Your task to perform on an android device: Search for razer huntsman on target.com, select the first entry, and add it to the cart. Image 0: 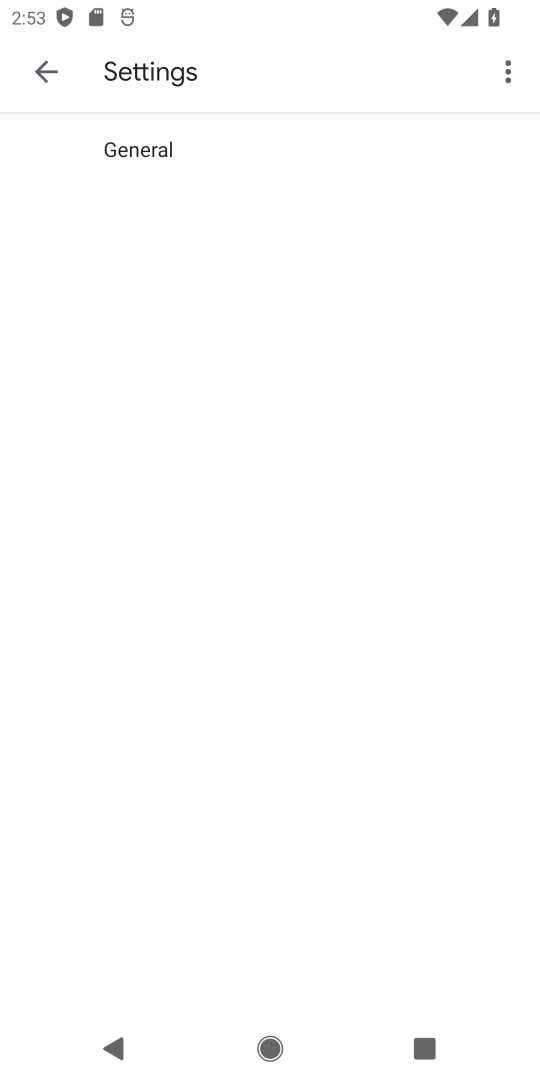
Step 0: press home button
Your task to perform on an android device: Search for razer huntsman on target.com, select the first entry, and add it to the cart. Image 1: 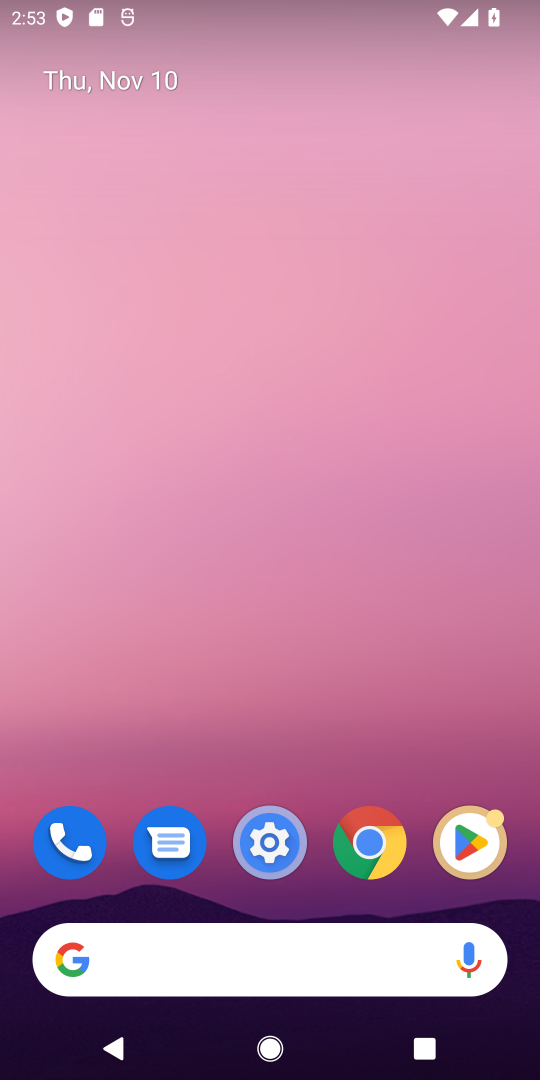
Step 1: click (119, 952)
Your task to perform on an android device: Search for razer huntsman on target.com, select the first entry, and add it to the cart. Image 2: 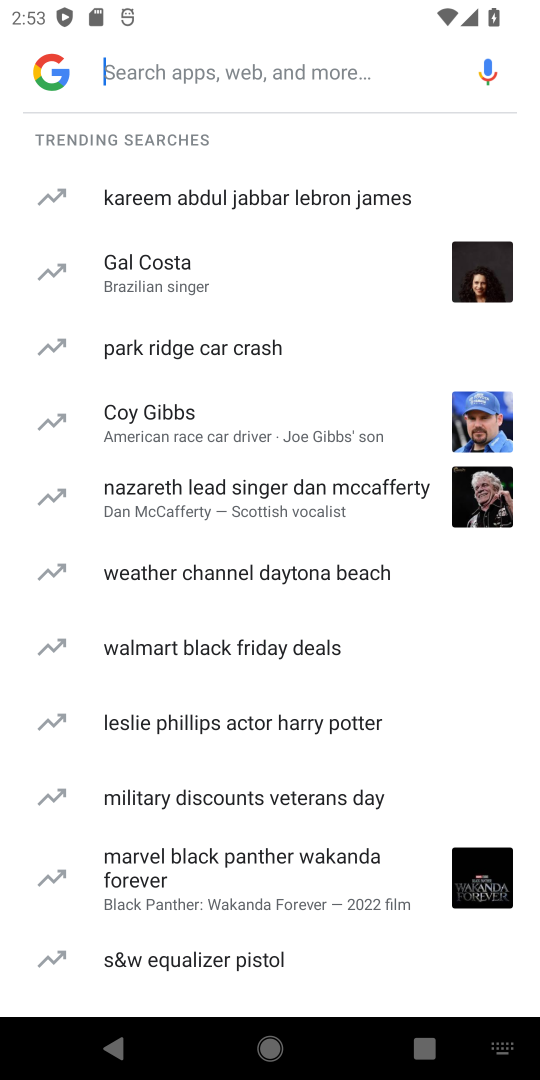
Step 2: type "target.com"
Your task to perform on an android device: Search for razer huntsman on target.com, select the first entry, and add it to the cart. Image 3: 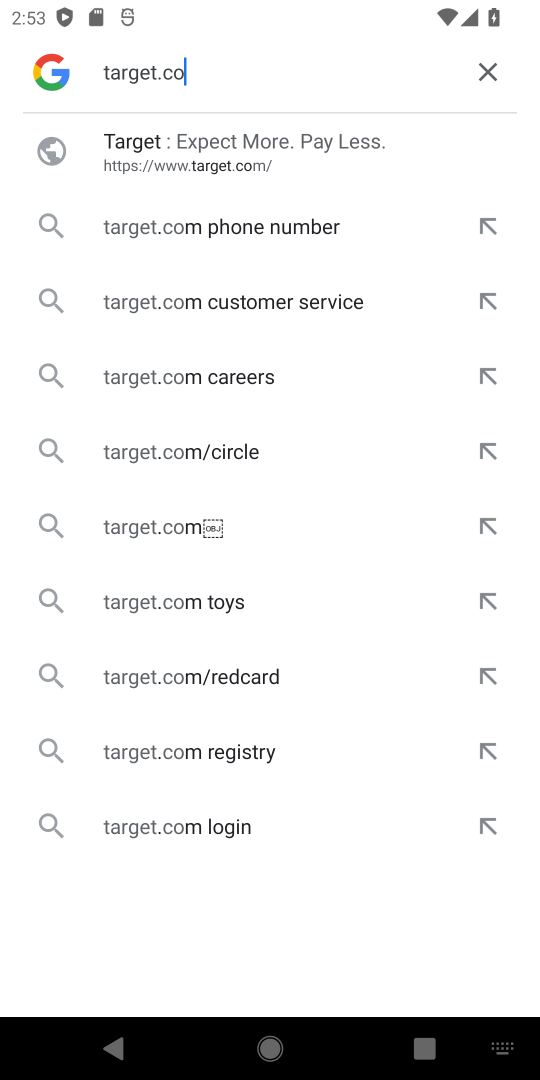
Step 3: press enter
Your task to perform on an android device: Search for razer huntsman on target.com, select the first entry, and add it to the cart. Image 4: 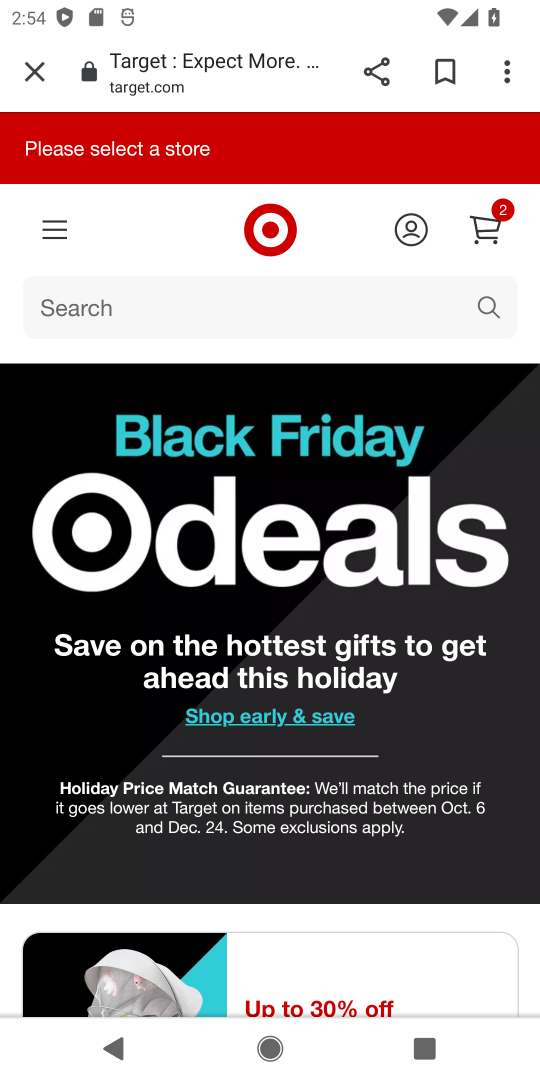
Step 4: click (103, 301)
Your task to perform on an android device: Search for razer huntsman on target.com, select the first entry, and add it to the cart. Image 5: 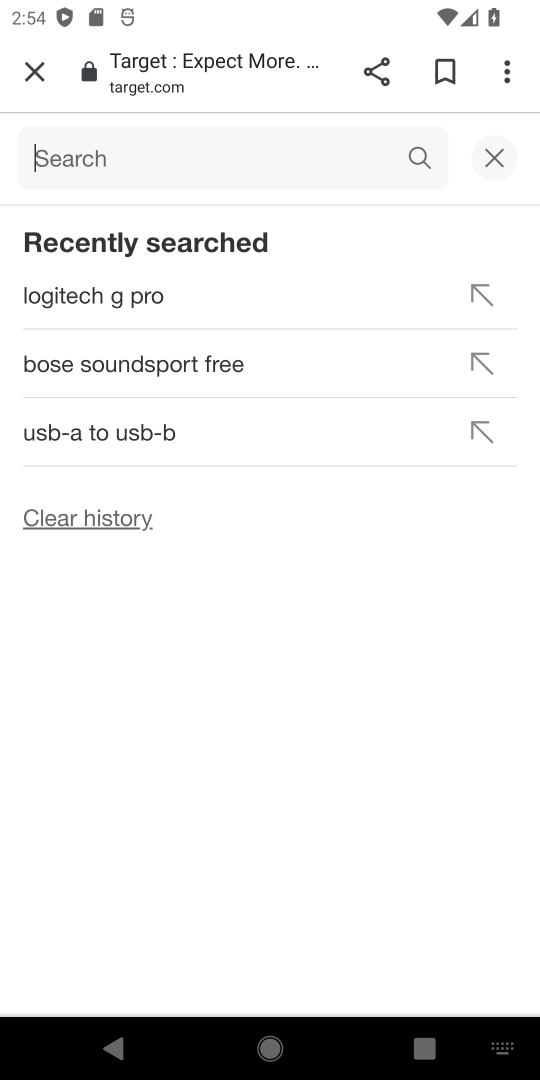
Step 5: press enter
Your task to perform on an android device: Search for razer huntsman on target.com, select the first entry, and add it to the cart. Image 6: 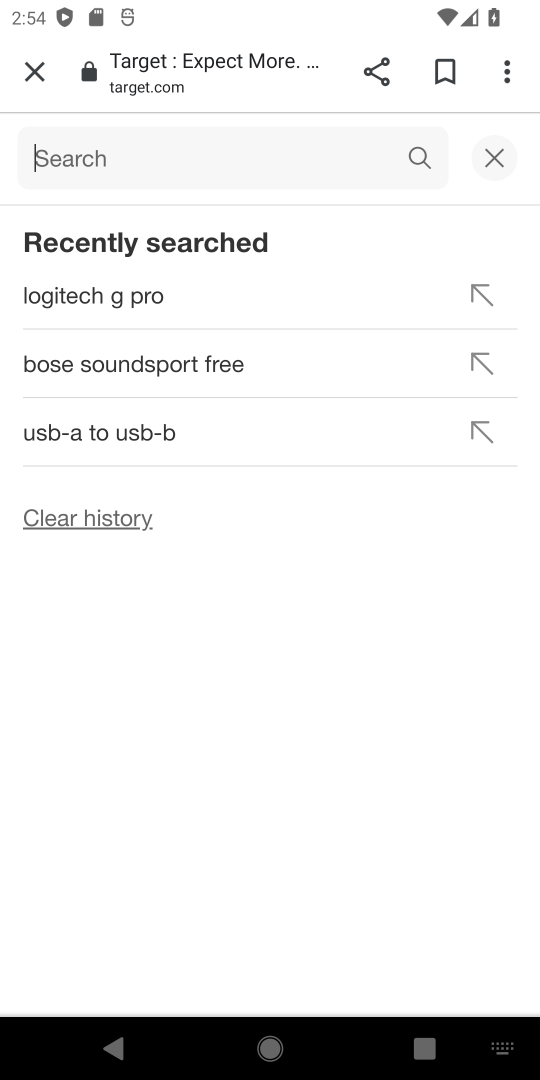
Step 6: type " razer huntsman"
Your task to perform on an android device: Search for razer huntsman on target.com, select the first entry, and add it to the cart. Image 7: 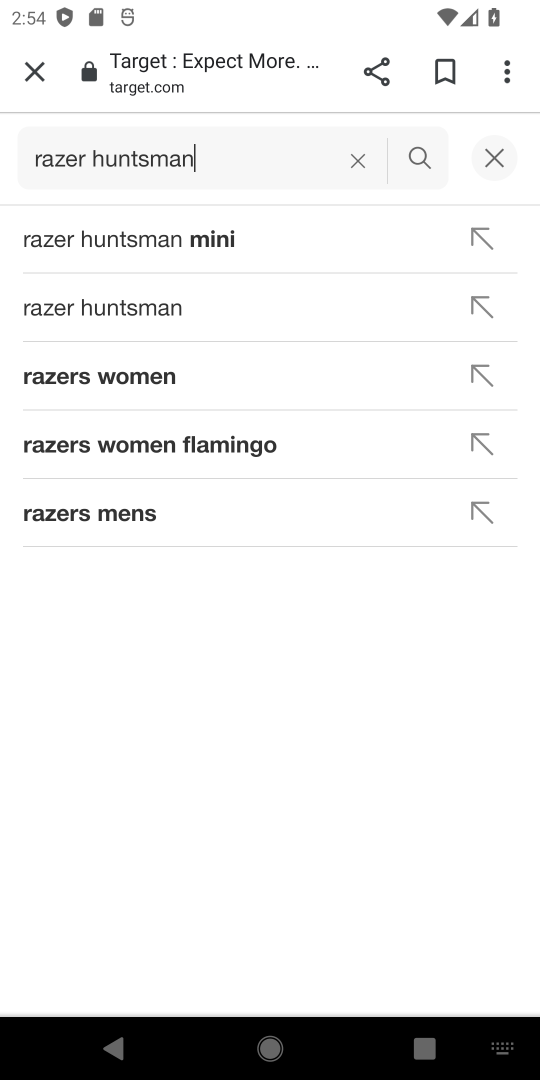
Step 7: click (425, 152)
Your task to perform on an android device: Search for razer huntsman on target.com, select the first entry, and add it to the cart. Image 8: 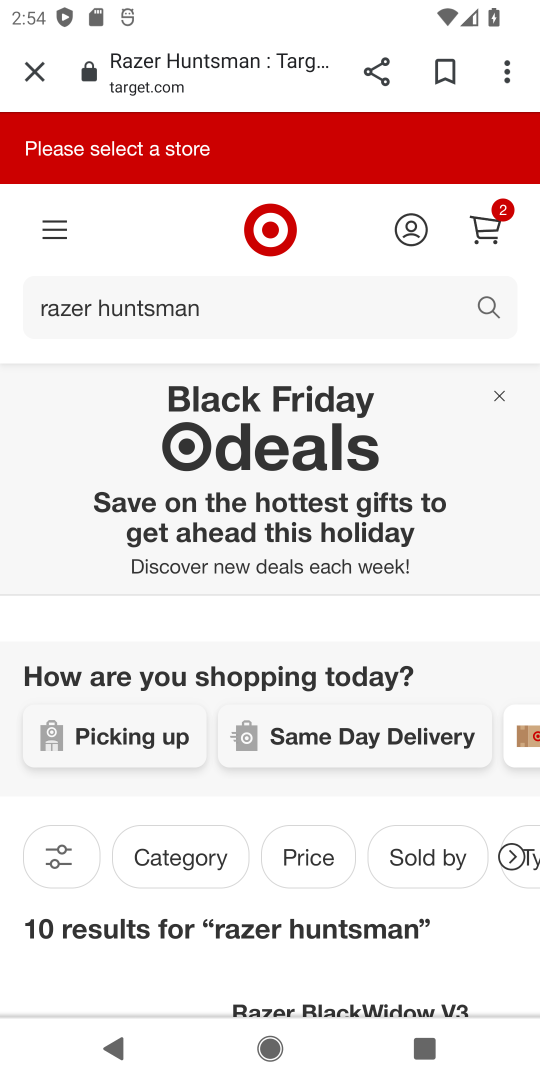
Step 8: drag from (349, 752) to (299, 362)
Your task to perform on an android device: Search for razer huntsman on target.com, select the first entry, and add it to the cart. Image 9: 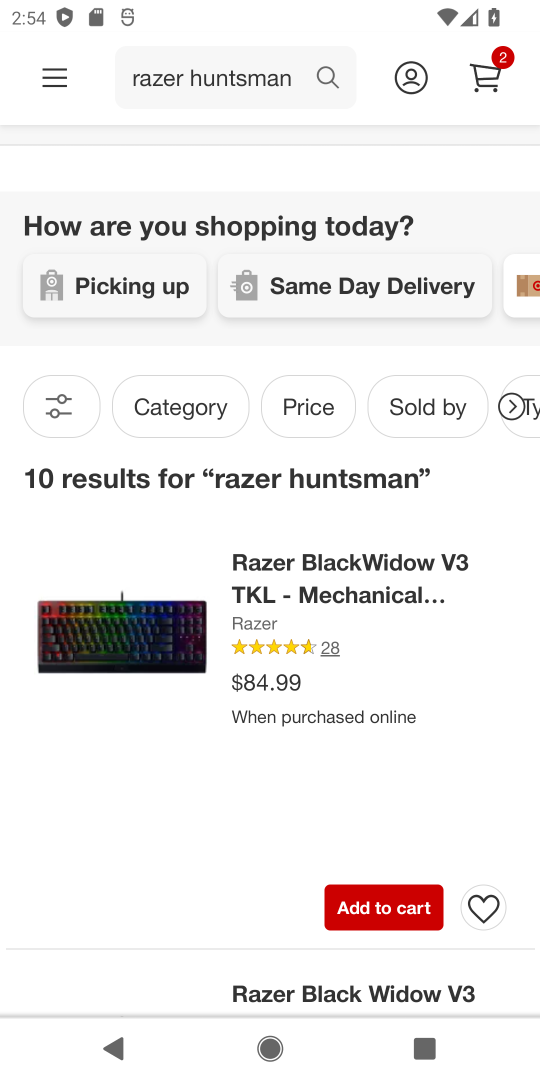
Step 9: drag from (314, 817) to (331, 491)
Your task to perform on an android device: Search for razer huntsman on target.com, select the first entry, and add it to the cart. Image 10: 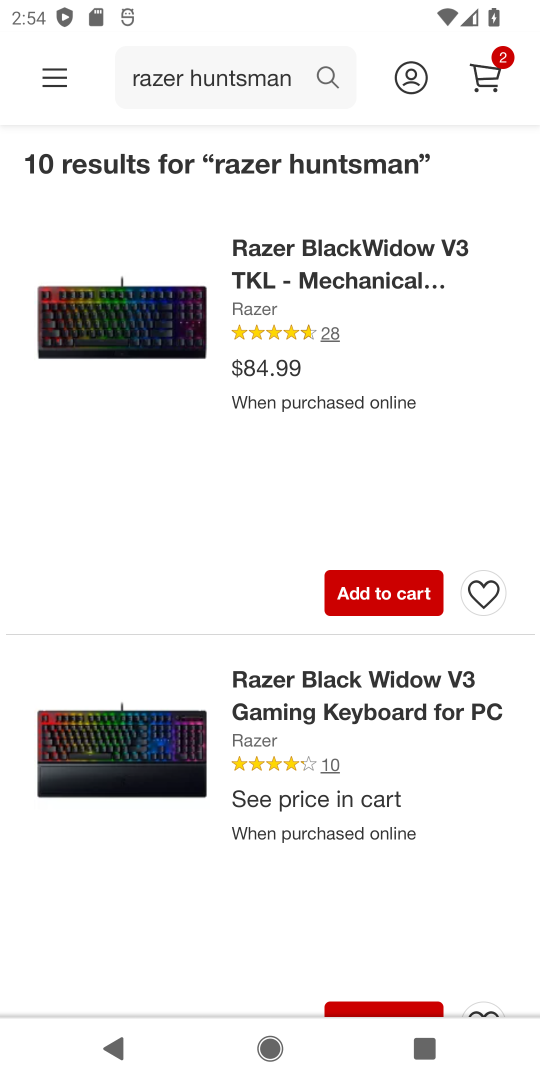
Step 10: drag from (284, 907) to (309, 562)
Your task to perform on an android device: Search for razer huntsman on target.com, select the first entry, and add it to the cart. Image 11: 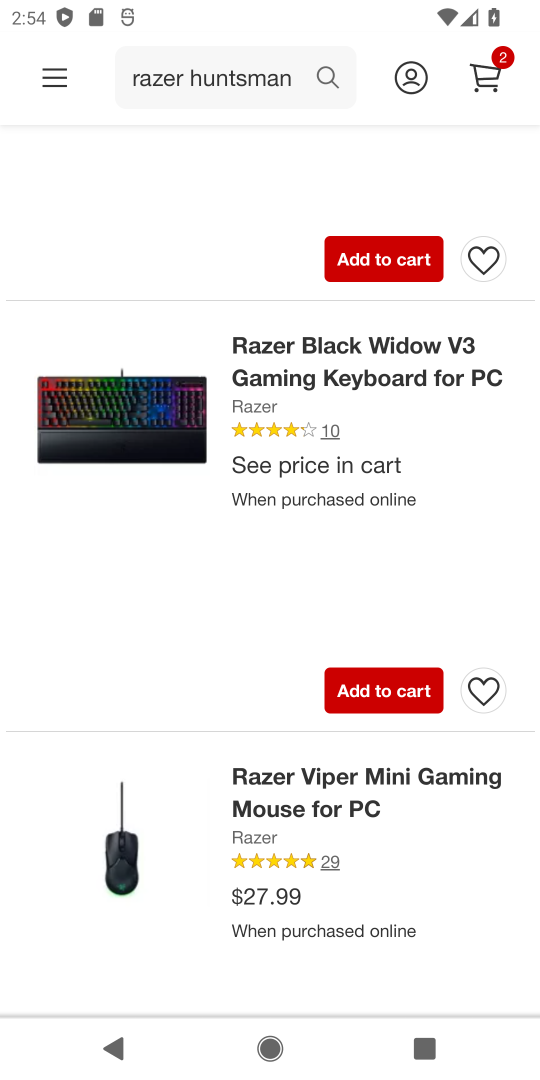
Step 11: drag from (233, 844) to (268, 342)
Your task to perform on an android device: Search for razer huntsman on target.com, select the first entry, and add it to the cart. Image 12: 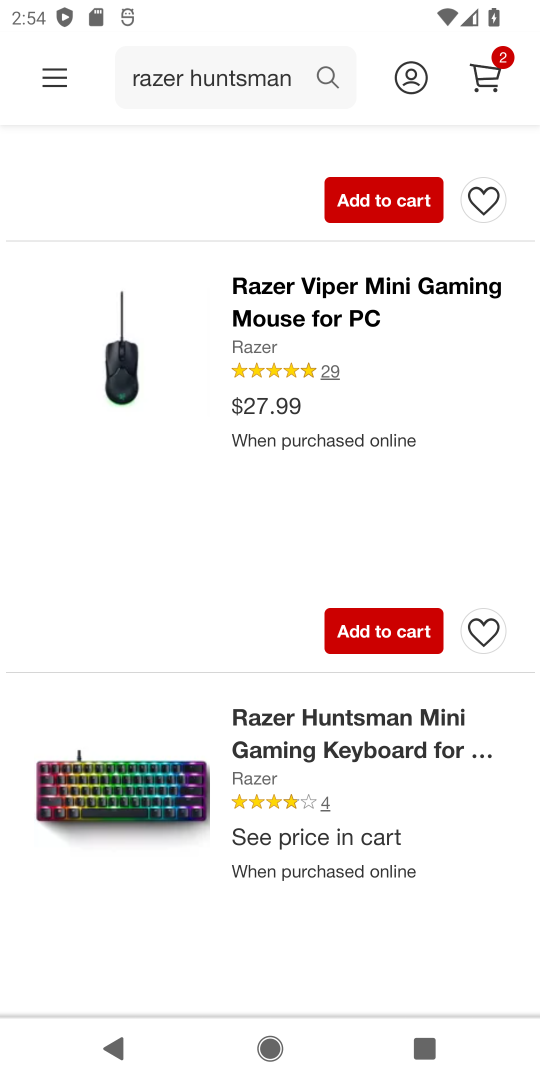
Step 12: drag from (265, 881) to (287, 503)
Your task to perform on an android device: Search for razer huntsman on target.com, select the first entry, and add it to the cart. Image 13: 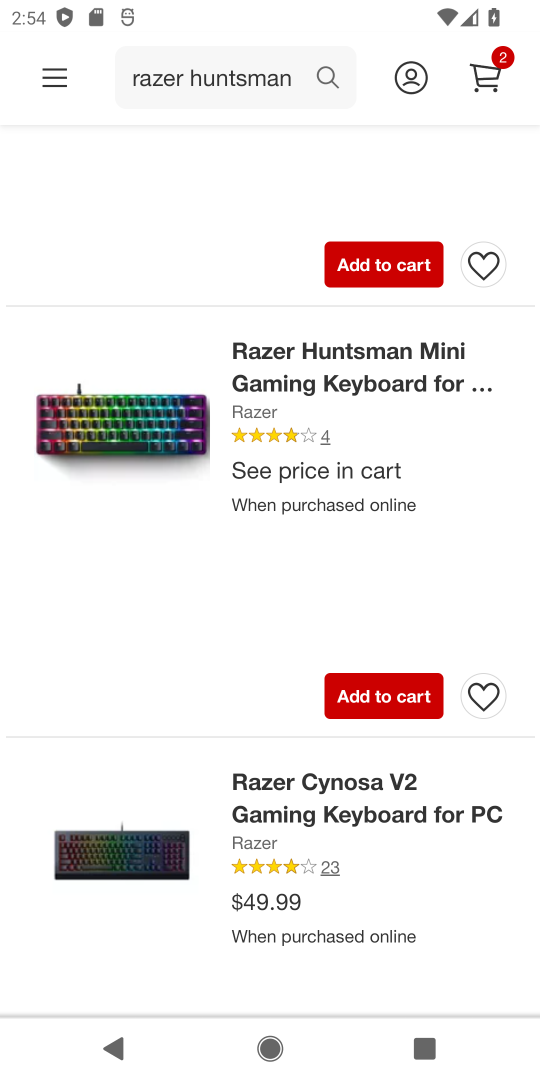
Step 13: click (364, 699)
Your task to perform on an android device: Search for razer huntsman on target.com, select the first entry, and add it to the cart. Image 14: 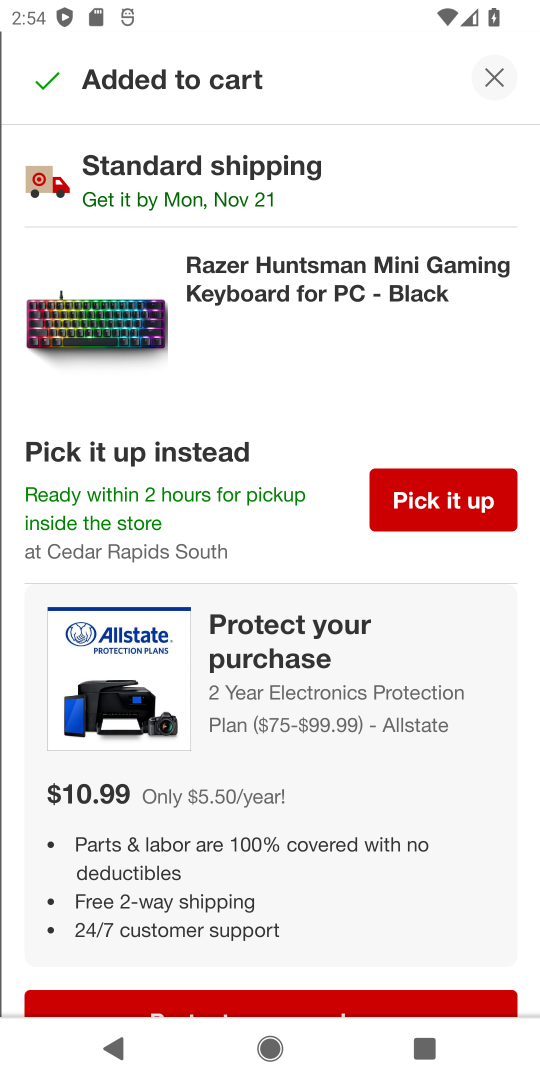
Step 14: drag from (259, 867) to (300, 471)
Your task to perform on an android device: Search for razer huntsman on target.com, select the first entry, and add it to the cart. Image 15: 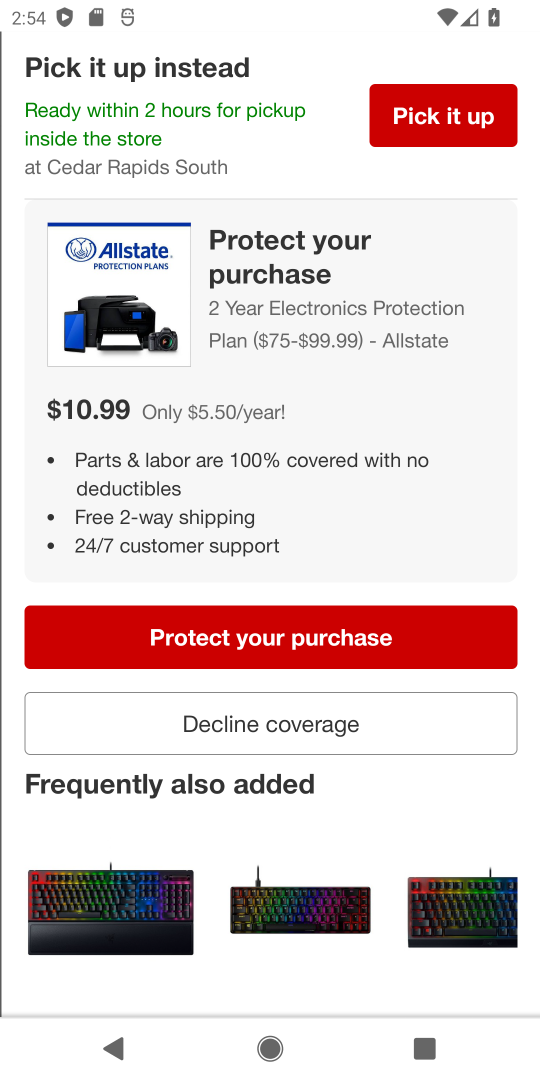
Step 15: click (221, 638)
Your task to perform on an android device: Search for razer huntsman on target.com, select the first entry, and add it to the cart. Image 16: 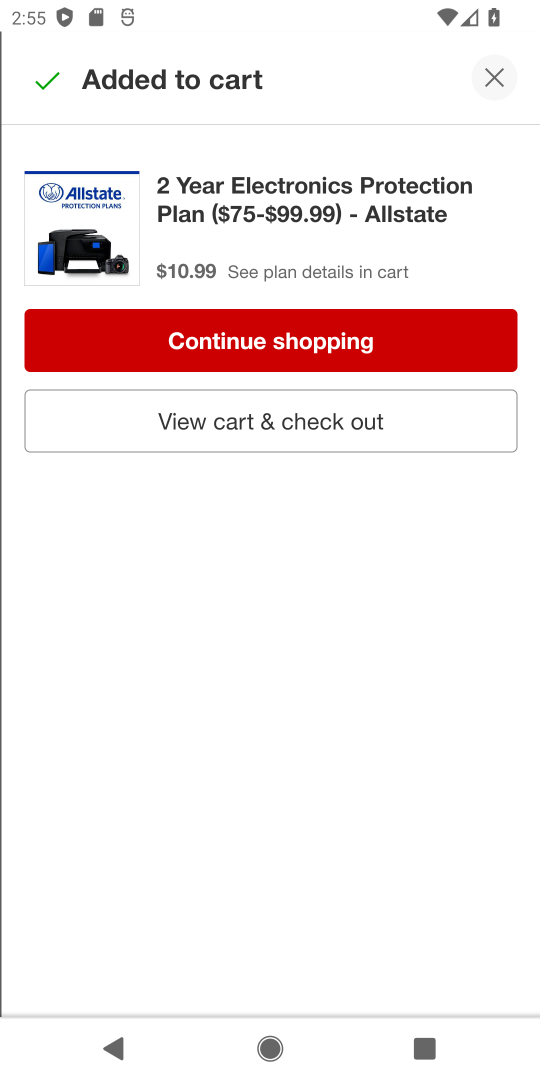
Step 16: task complete